Your task to perform on an android device: turn off translation in the chrome app Image 0: 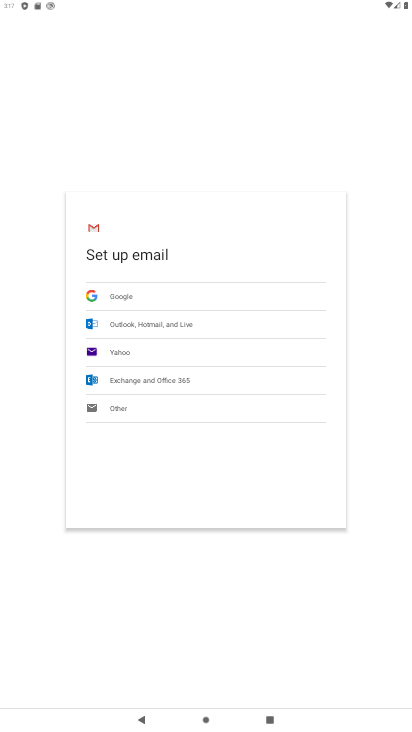
Step 0: press home button
Your task to perform on an android device: turn off translation in the chrome app Image 1: 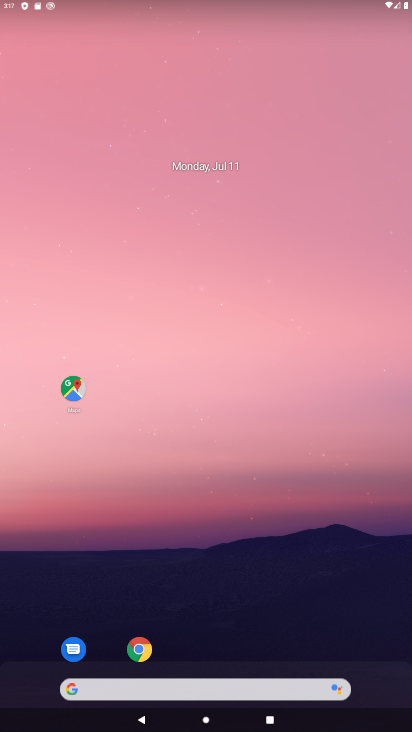
Step 1: drag from (246, 672) to (319, 70)
Your task to perform on an android device: turn off translation in the chrome app Image 2: 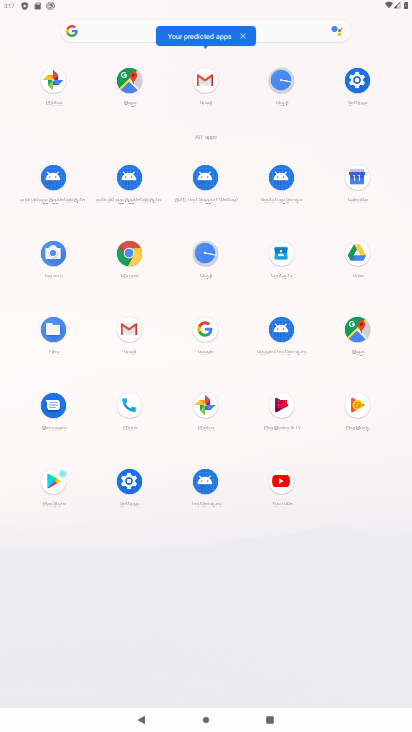
Step 2: click (126, 257)
Your task to perform on an android device: turn off translation in the chrome app Image 3: 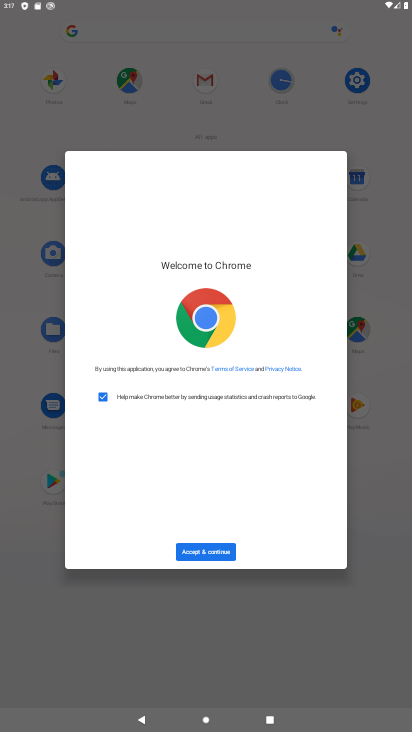
Step 3: click (211, 553)
Your task to perform on an android device: turn off translation in the chrome app Image 4: 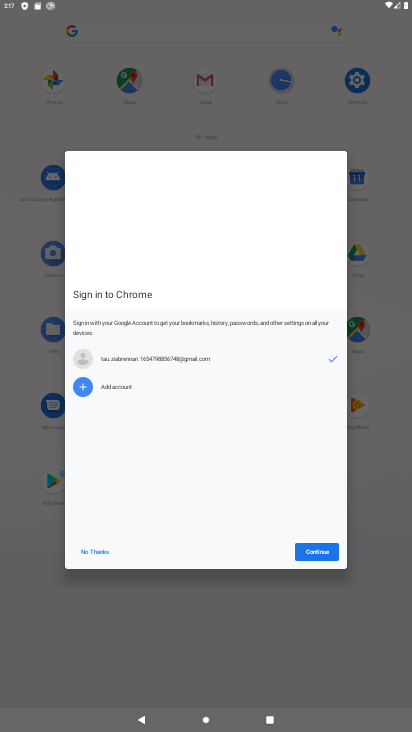
Step 4: click (319, 549)
Your task to perform on an android device: turn off translation in the chrome app Image 5: 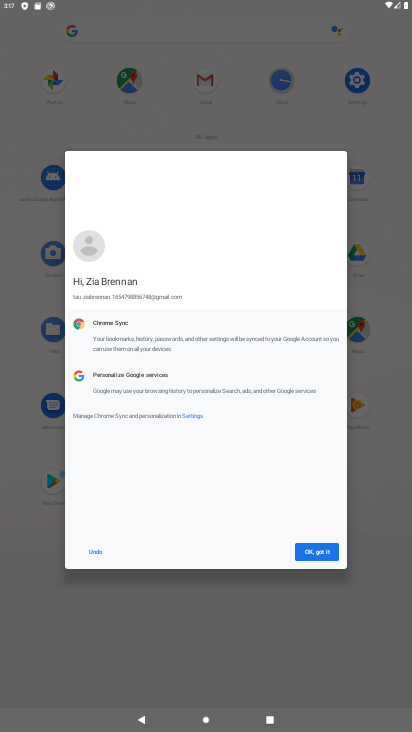
Step 5: click (320, 550)
Your task to perform on an android device: turn off translation in the chrome app Image 6: 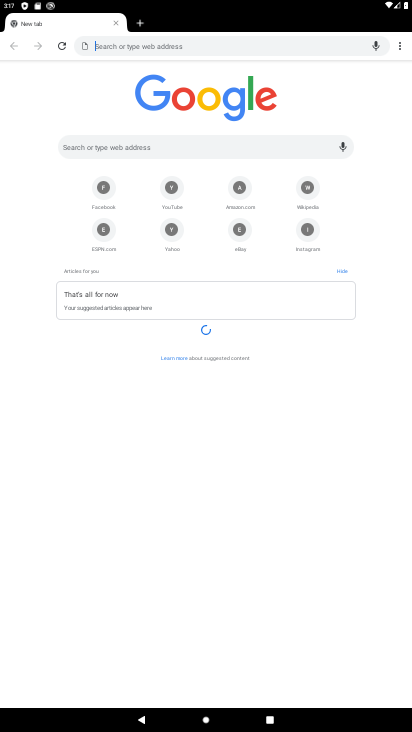
Step 6: drag from (395, 42) to (317, 204)
Your task to perform on an android device: turn off translation in the chrome app Image 7: 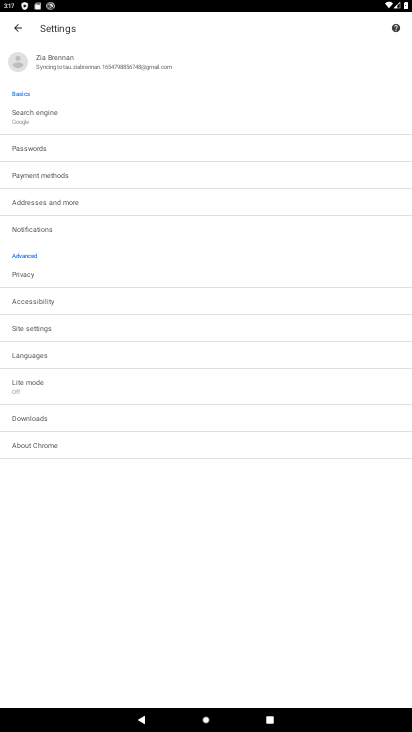
Step 7: click (72, 356)
Your task to perform on an android device: turn off translation in the chrome app Image 8: 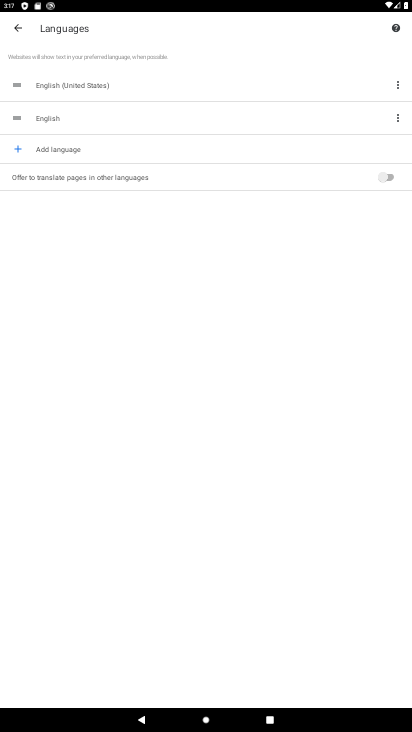
Step 8: task complete